Your task to perform on an android device: toggle improve location accuracy Image 0: 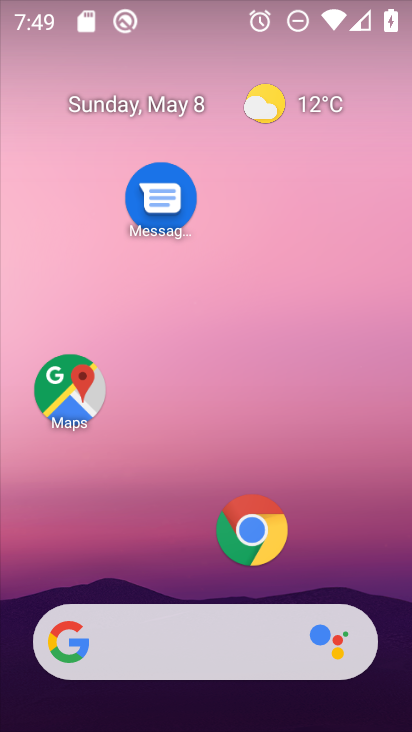
Step 0: press home button
Your task to perform on an android device: toggle improve location accuracy Image 1: 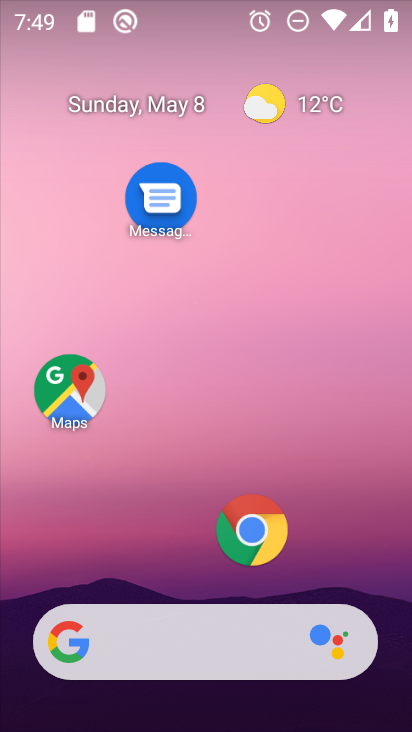
Step 1: drag from (185, 592) to (245, 77)
Your task to perform on an android device: toggle improve location accuracy Image 2: 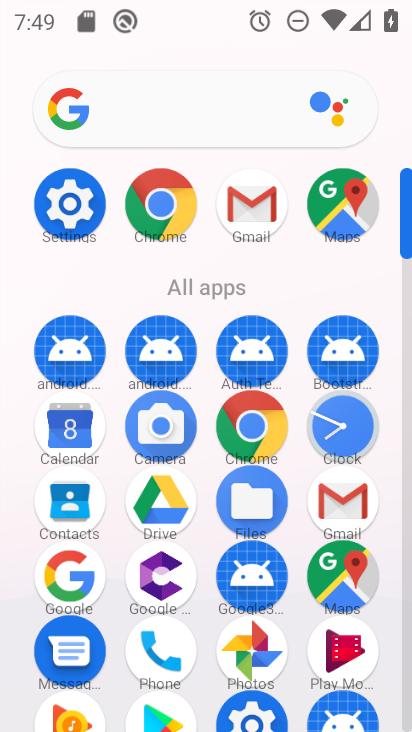
Step 2: click (63, 194)
Your task to perform on an android device: toggle improve location accuracy Image 3: 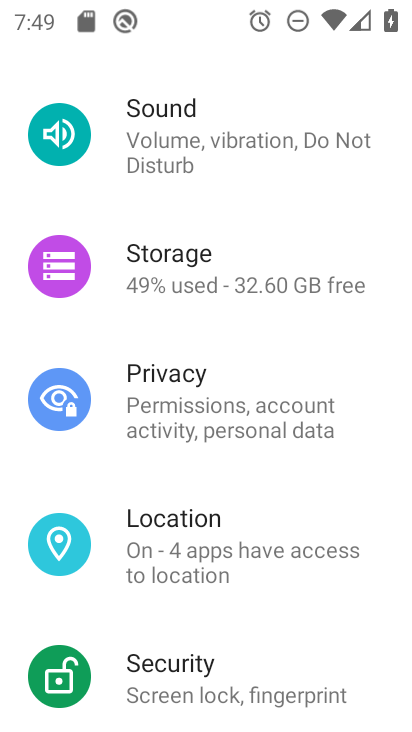
Step 3: click (234, 526)
Your task to perform on an android device: toggle improve location accuracy Image 4: 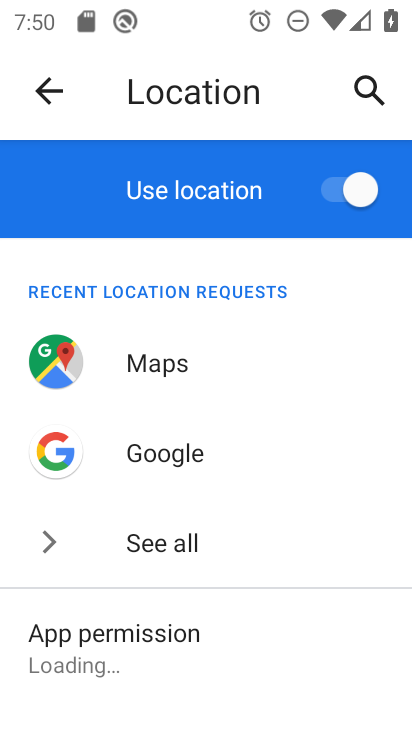
Step 4: drag from (214, 671) to (231, 123)
Your task to perform on an android device: toggle improve location accuracy Image 5: 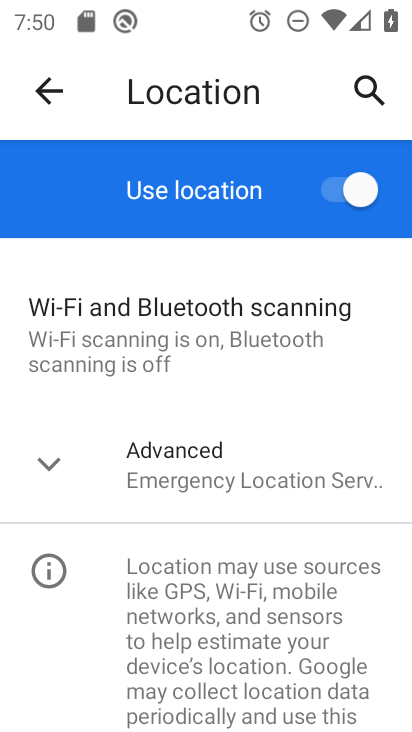
Step 5: click (53, 456)
Your task to perform on an android device: toggle improve location accuracy Image 6: 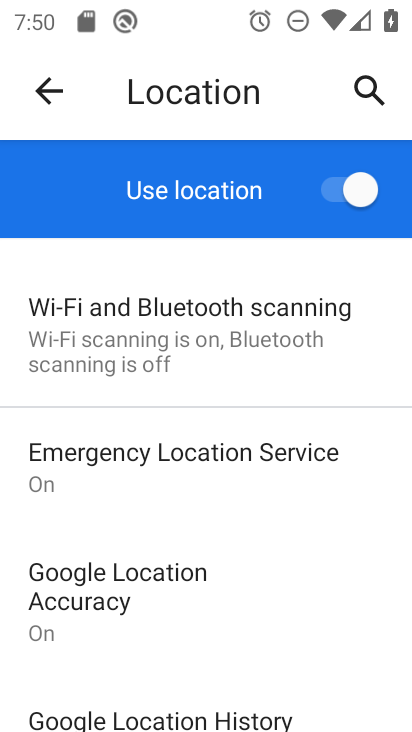
Step 6: click (151, 598)
Your task to perform on an android device: toggle improve location accuracy Image 7: 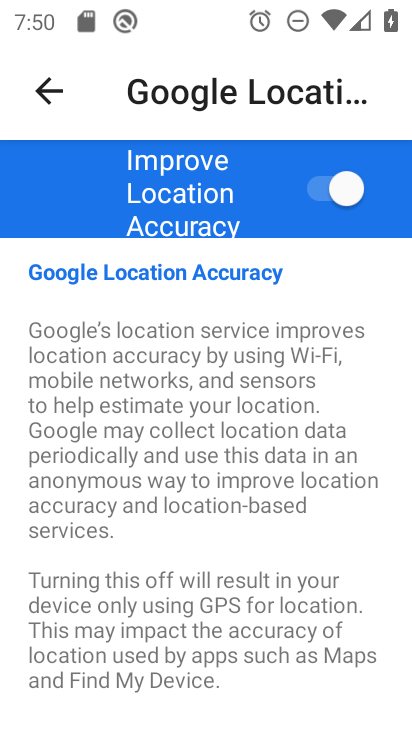
Step 7: task complete